Your task to perform on an android device: Search for pizza restaurants on Maps Image 0: 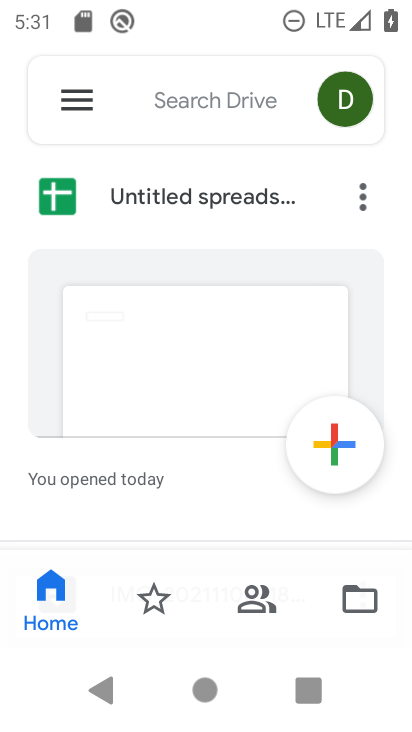
Step 0: press home button
Your task to perform on an android device: Search for pizza restaurants on Maps Image 1: 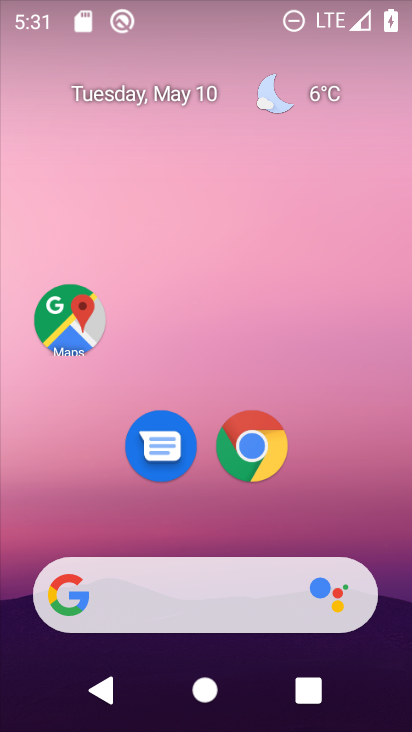
Step 1: click (73, 313)
Your task to perform on an android device: Search for pizza restaurants on Maps Image 2: 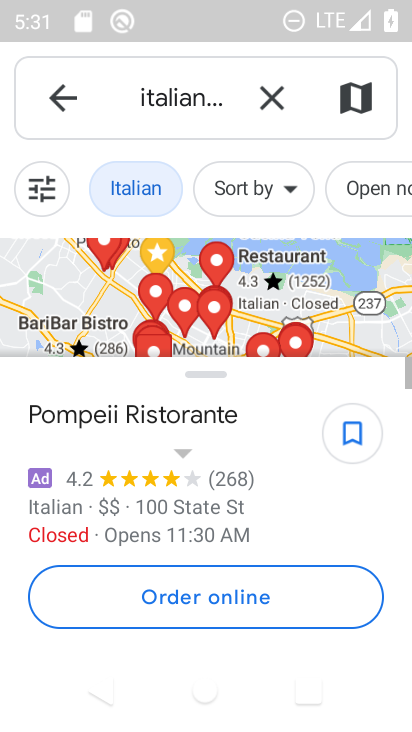
Step 2: click (284, 99)
Your task to perform on an android device: Search for pizza restaurants on Maps Image 3: 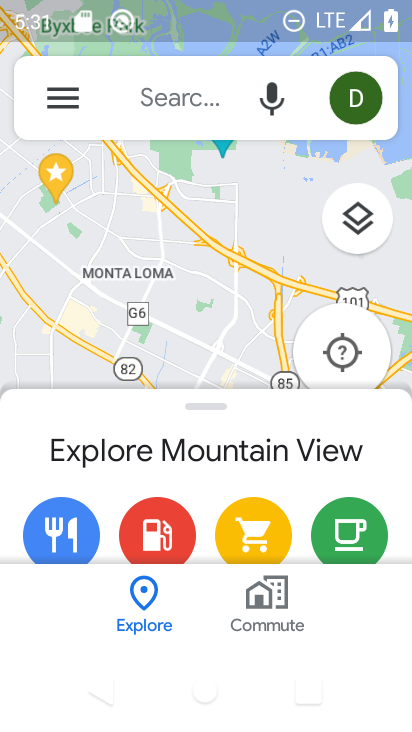
Step 3: click (151, 96)
Your task to perform on an android device: Search for pizza restaurants on Maps Image 4: 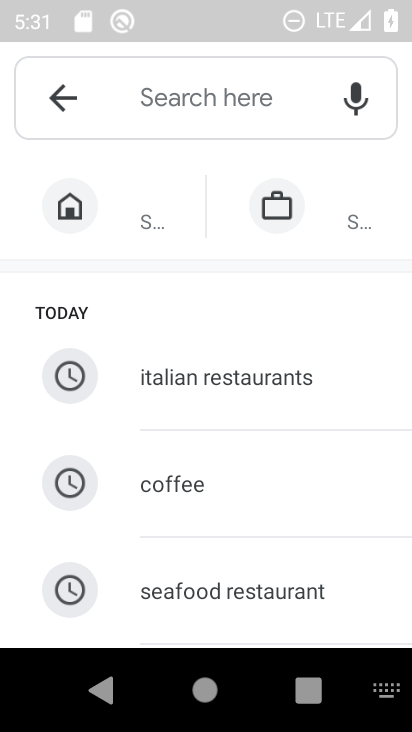
Step 4: drag from (251, 540) to (225, 246)
Your task to perform on an android device: Search for pizza restaurants on Maps Image 5: 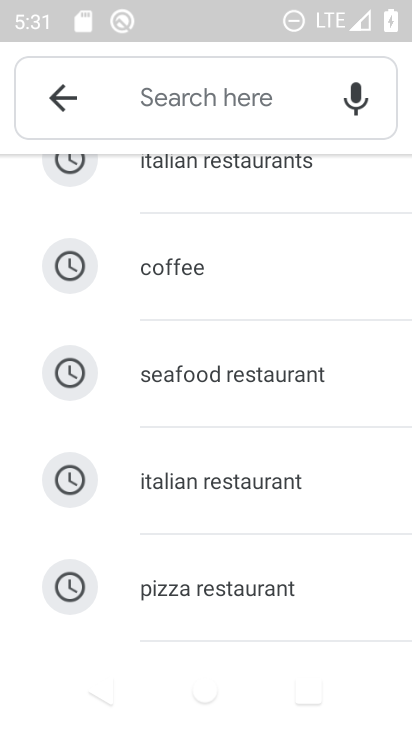
Step 5: click (227, 592)
Your task to perform on an android device: Search for pizza restaurants on Maps Image 6: 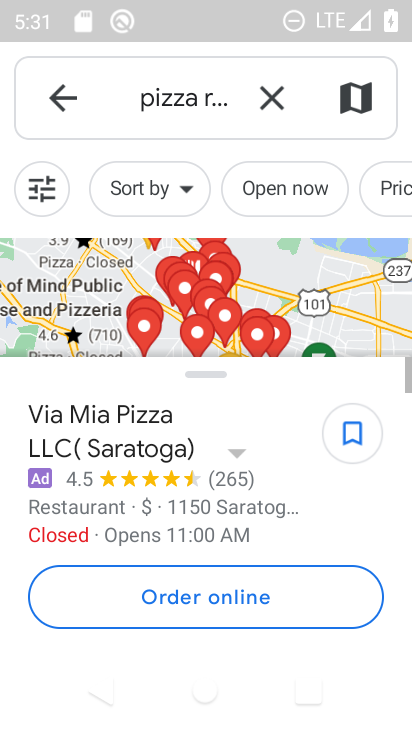
Step 6: task complete